Your task to perform on an android device: Do I have any events this weekend? Image 0: 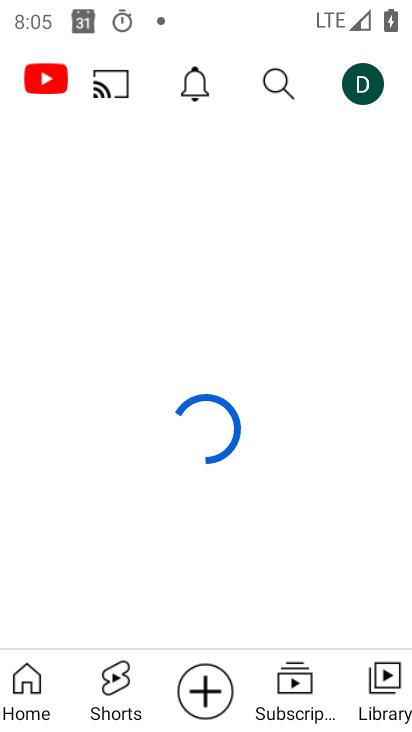
Step 0: drag from (226, 634) to (219, 191)
Your task to perform on an android device: Do I have any events this weekend? Image 1: 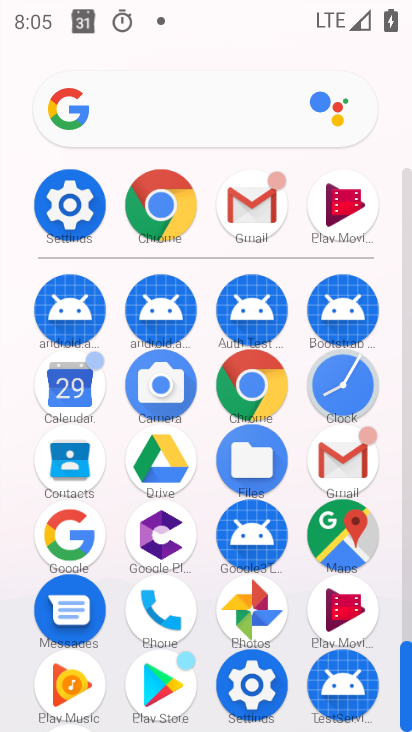
Step 1: click (145, 197)
Your task to perform on an android device: Do I have any events this weekend? Image 2: 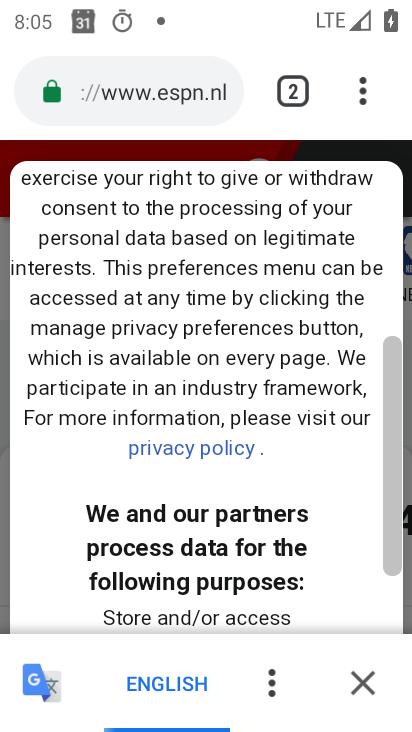
Step 2: click (362, 98)
Your task to perform on an android device: Do I have any events this weekend? Image 3: 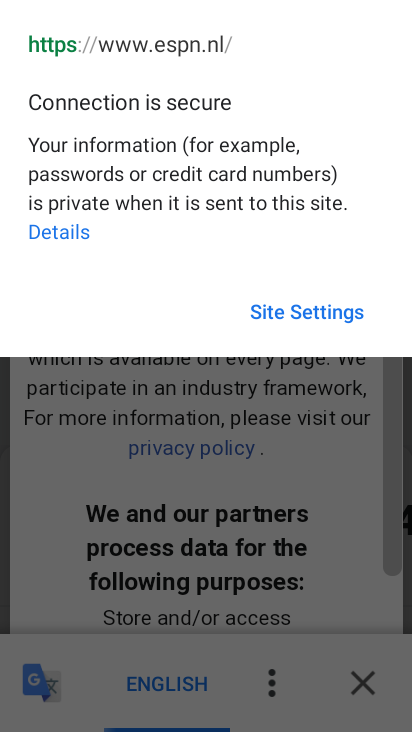
Step 3: press home button
Your task to perform on an android device: Do I have any events this weekend? Image 4: 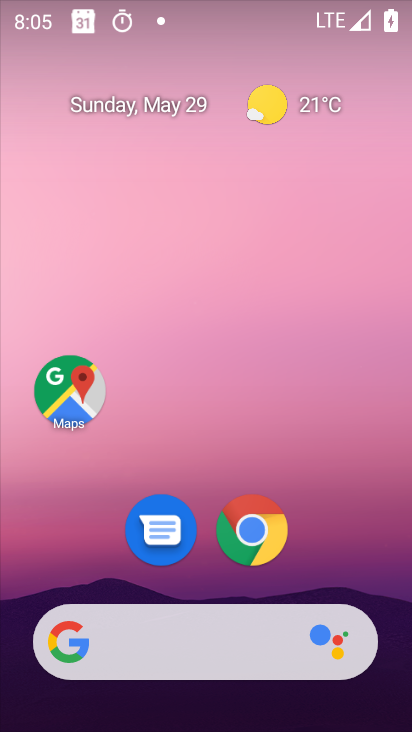
Step 4: drag from (208, 694) to (159, 97)
Your task to perform on an android device: Do I have any events this weekend? Image 5: 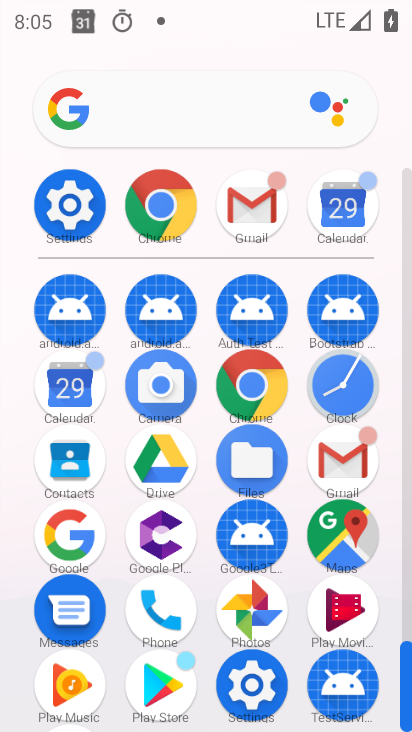
Step 5: click (82, 395)
Your task to perform on an android device: Do I have any events this weekend? Image 6: 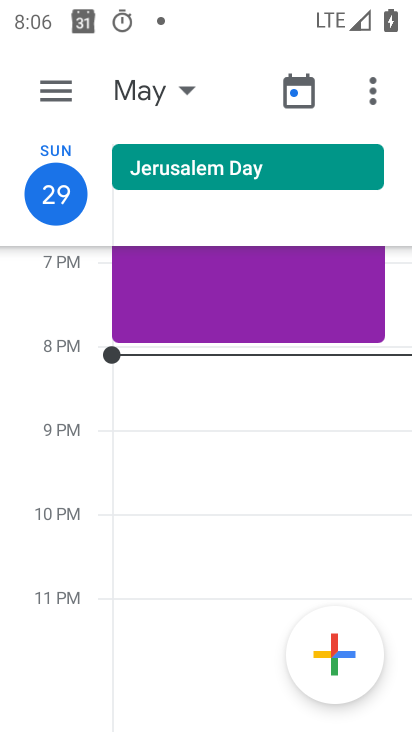
Step 6: click (57, 87)
Your task to perform on an android device: Do I have any events this weekend? Image 7: 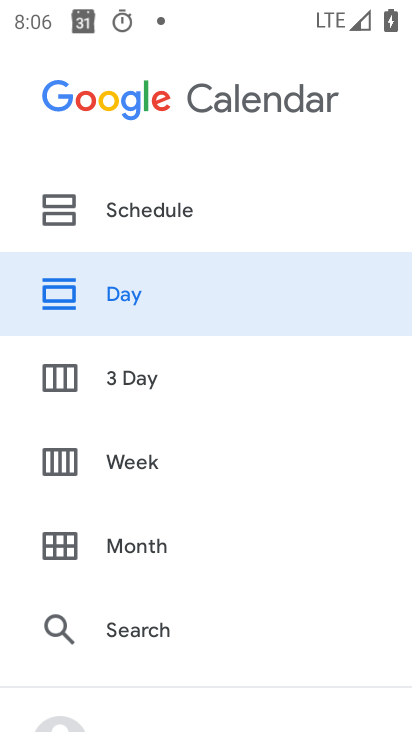
Step 7: click (174, 467)
Your task to perform on an android device: Do I have any events this weekend? Image 8: 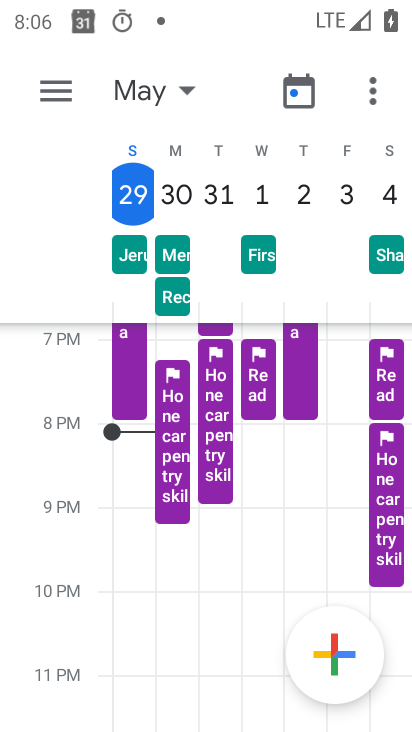
Step 8: task complete